Your task to perform on an android device: change the clock style Image 0: 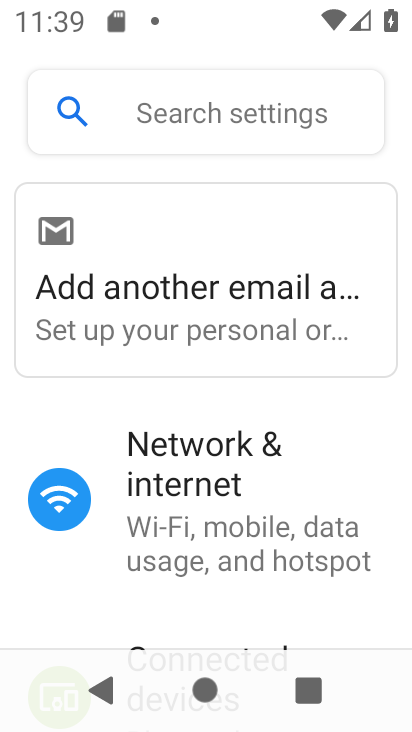
Step 0: press home button
Your task to perform on an android device: change the clock style Image 1: 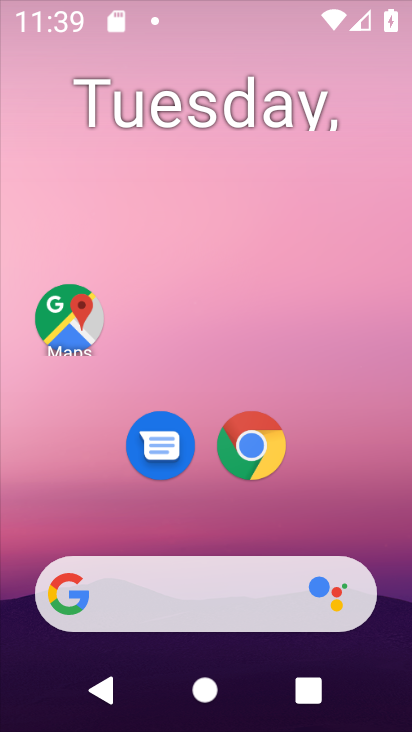
Step 1: drag from (377, 654) to (308, 44)
Your task to perform on an android device: change the clock style Image 2: 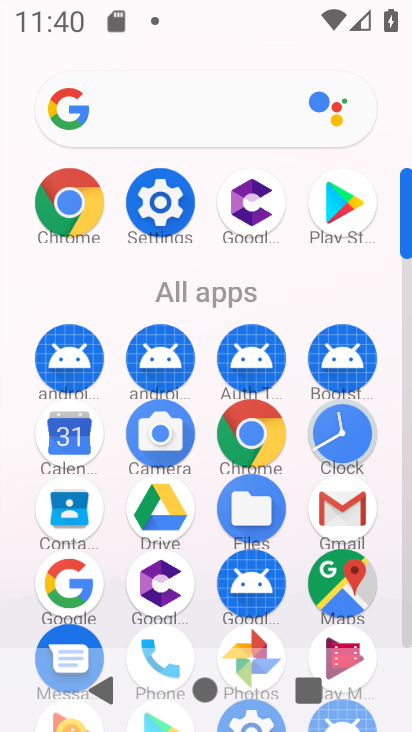
Step 2: click (347, 431)
Your task to perform on an android device: change the clock style Image 3: 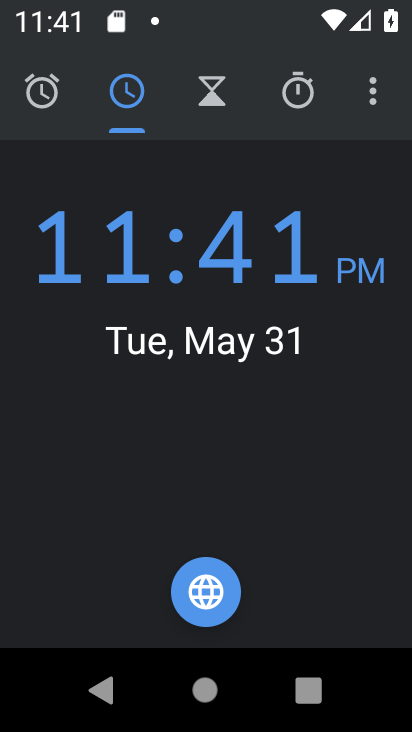
Step 3: click (369, 81)
Your task to perform on an android device: change the clock style Image 4: 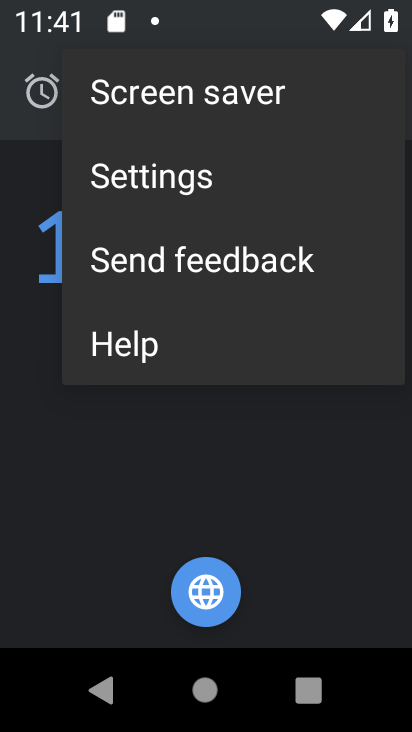
Step 4: click (125, 199)
Your task to perform on an android device: change the clock style Image 5: 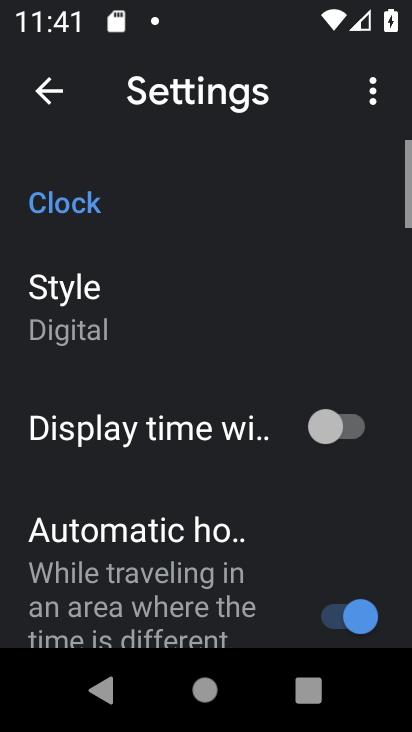
Step 5: click (177, 308)
Your task to perform on an android device: change the clock style Image 6: 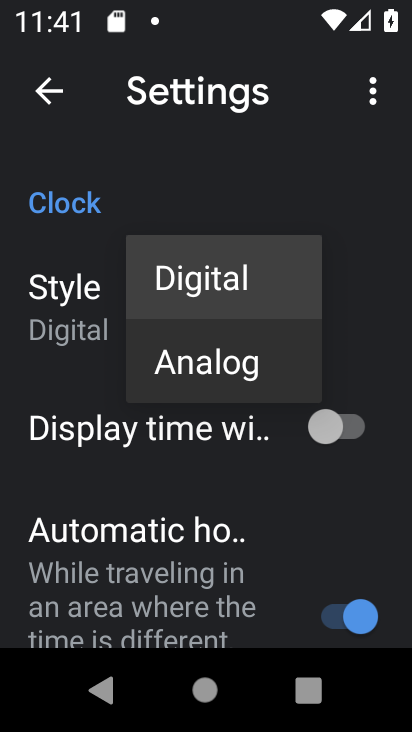
Step 6: click (193, 370)
Your task to perform on an android device: change the clock style Image 7: 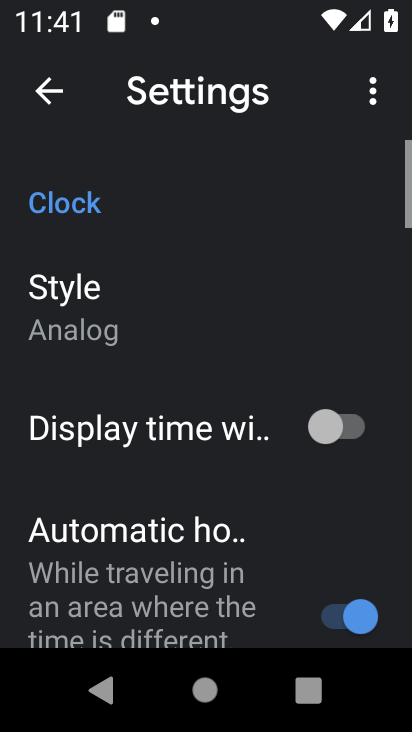
Step 7: task complete